Your task to perform on an android device: open chrome privacy settings Image 0: 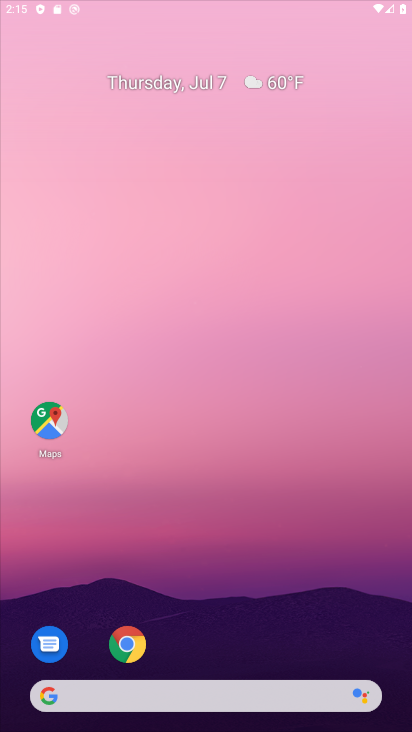
Step 0: click (216, 684)
Your task to perform on an android device: open chrome privacy settings Image 1: 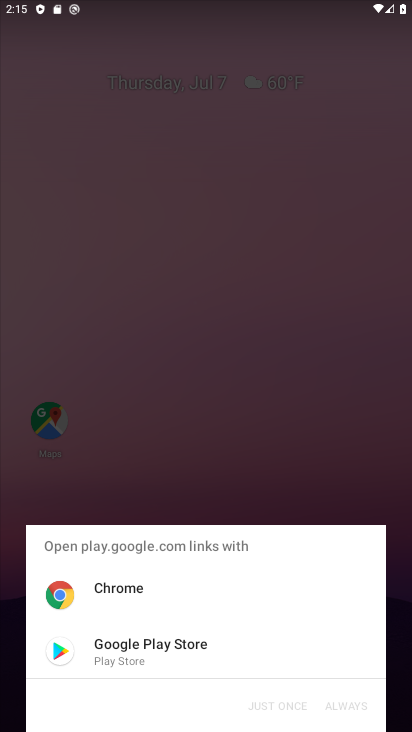
Step 1: press home button
Your task to perform on an android device: open chrome privacy settings Image 2: 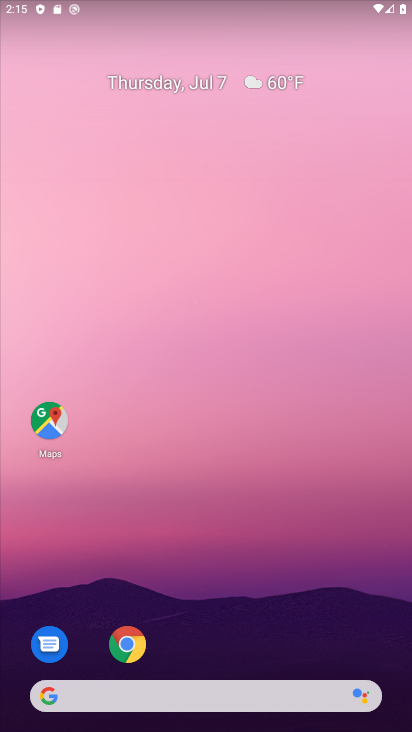
Step 2: click (138, 648)
Your task to perform on an android device: open chrome privacy settings Image 3: 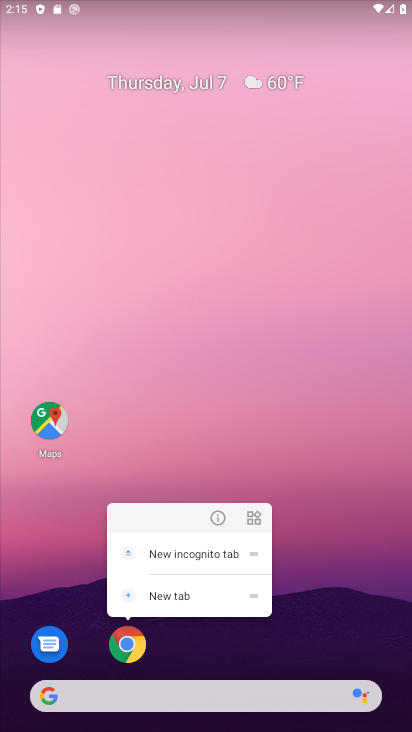
Step 3: click (132, 649)
Your task to perform on an android device: open chrome privacy settings Image 4: 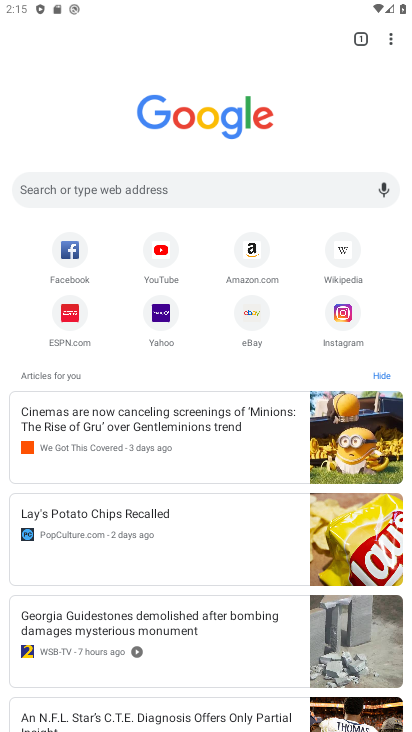
Step 4: drag from (395, 51) to (278, 322)
Your task to perform on an android device: open chrome privacy settings Image 5: 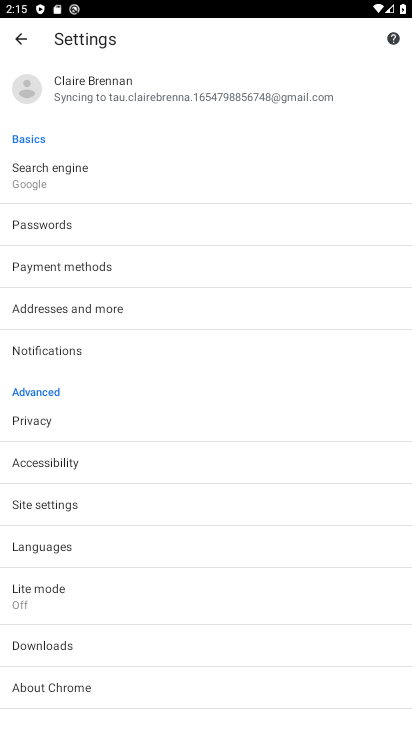
Step 5: click (50, 419)
Your task to perform on an android device: open chrome privacy settings Image 6: 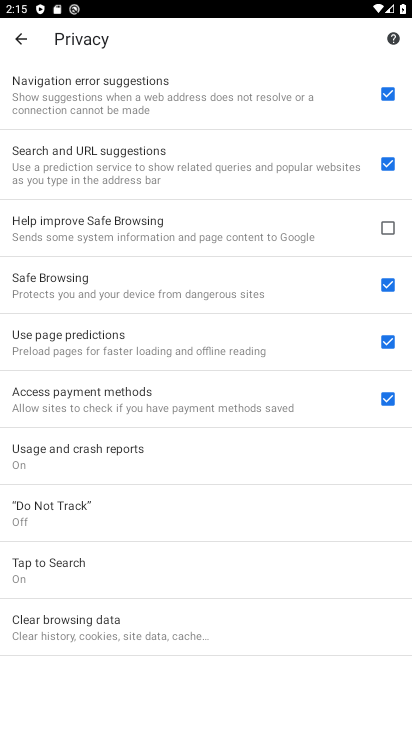
Step 6: task complete